Your task to perform on an android device: turn off smart reply in the gmail app Image 0: 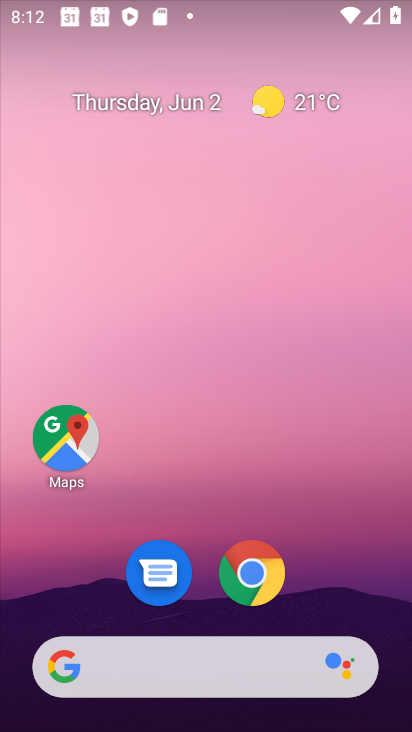
Step 0: drag from (351, 200) to (345, 84)
Your task to perform on an android device: turn off smart reply in the gmail app Image 1: 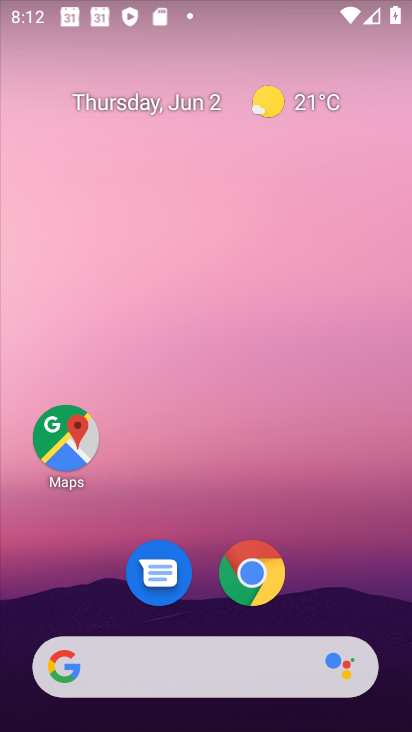
Step 1: drag from (284, 410) to (297, 12)
Your task to perform on an android device: turn off smart reply in the gmail app Image 2: 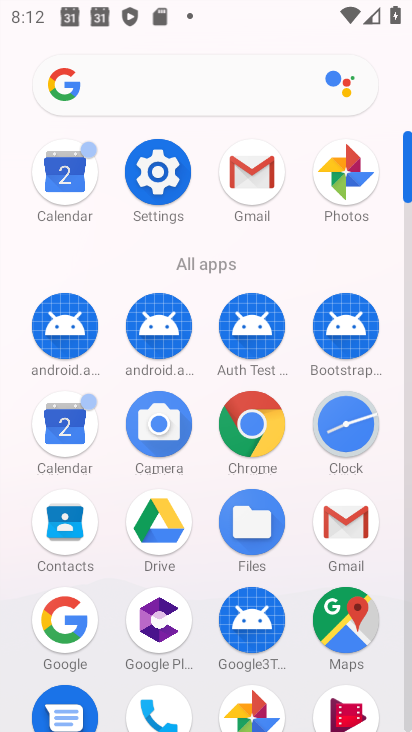
Step 2: click (250, 161)
Your task to perform on an android device: turn off smart reply in the gmail app Image 3: 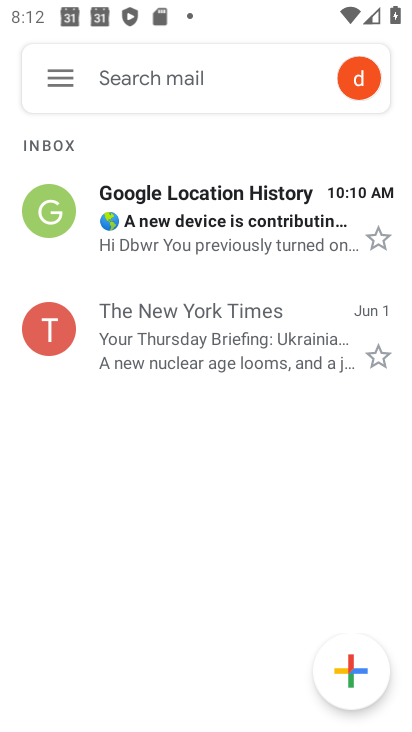
Step 3: click (67, 75)
Your task to perform on an android device: turn off smart reply in the gmail app Image 4: 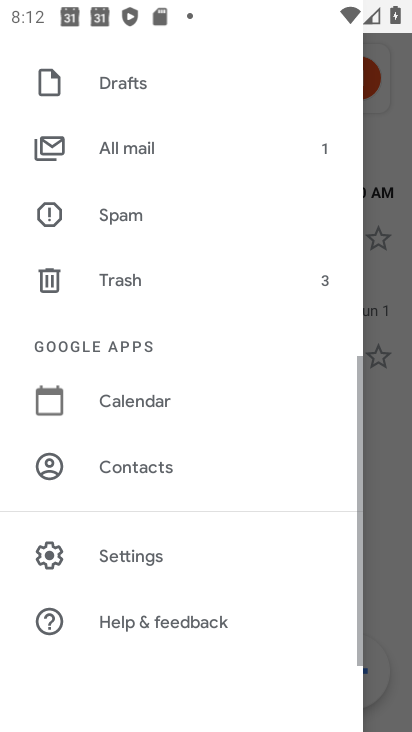
Step 4: click (152, 574)
Your task to perform on an android device: turn off smart reply in the gmail app Image 5: 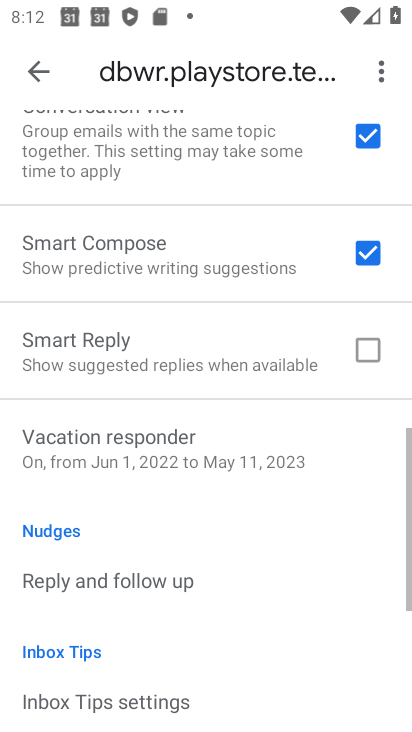
Step 5: task complete